Your task to perform on an android device: turn vacation reply on in the gmail app Image 0: 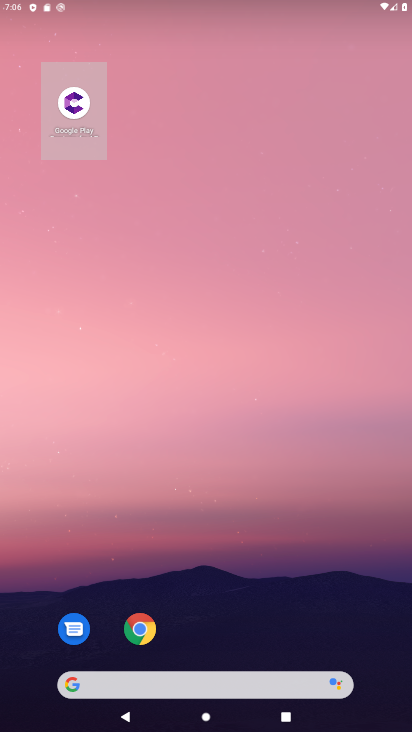
Step 0: drag from (284, 381) to (284, 249)
Your task to perform on an android device: turn vacation reply on in the gmail app Image 1: 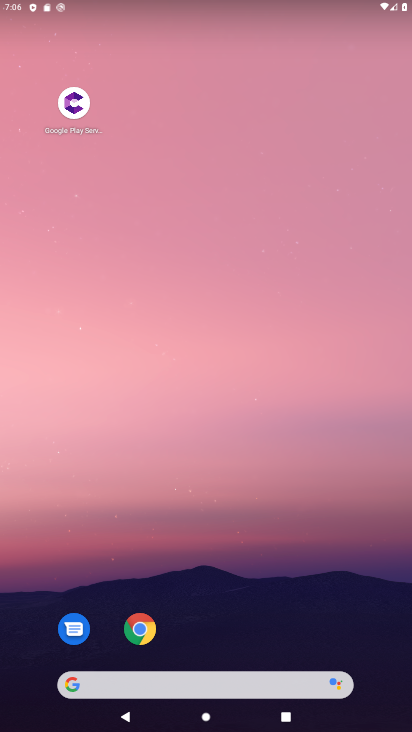
Step 1: drag from (212, 479) to (229, 239)
Your task to perform on an android device: turn vacation reply on in the gmail app Image 2: 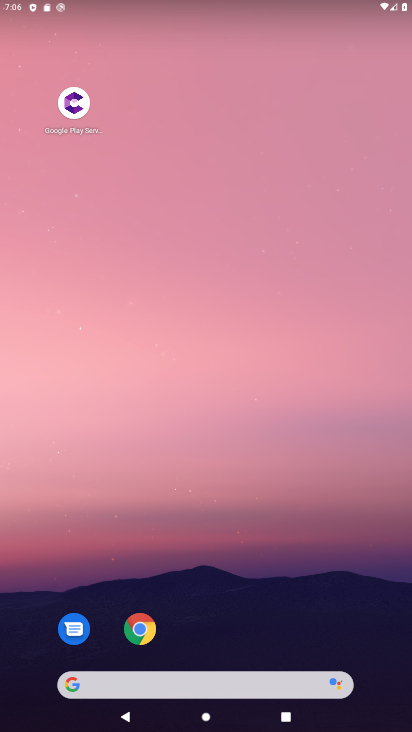
Step 2: drag from (255, 556) to (297, 270)
Your task to perform on an android device: turn vacation reply on in the gmail app Image 3: 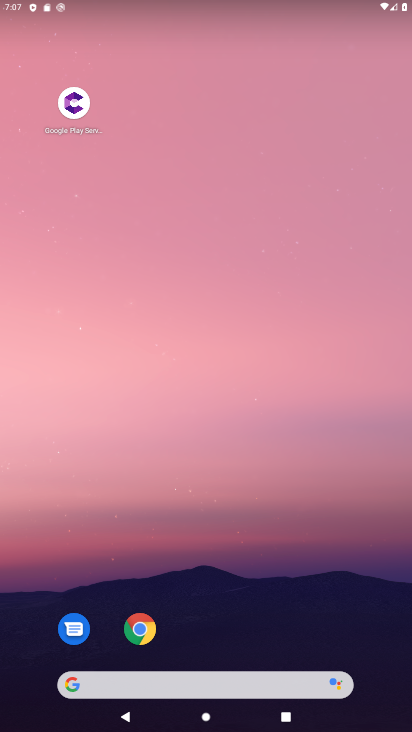
Step 3: drag from (254, 494) to (275, 246)
Your task to perform on an android device: turn vacation reply on in the gmail app Image 4: 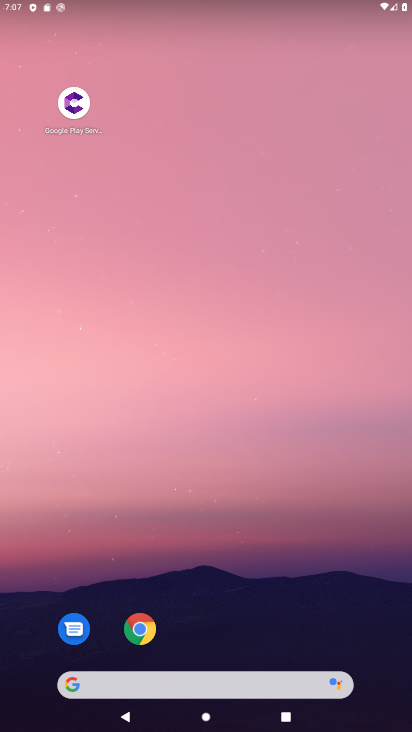
Step 4: drag from (270, 564) to (313, 200)
Your task to perform on an android device: turn vacation reply on in the gmail app Image 5: 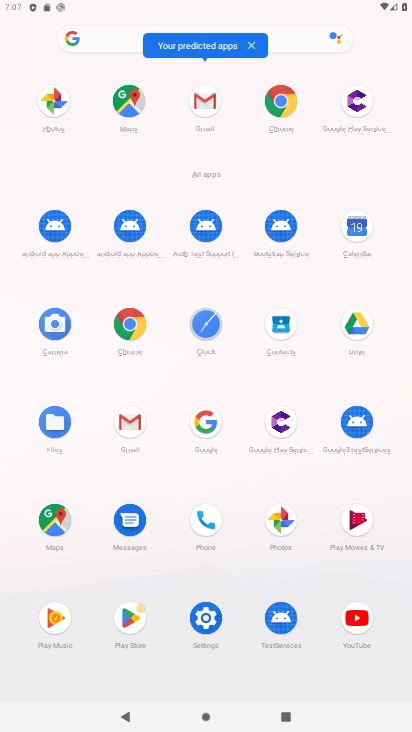
Step 5: click (127, 424)
Your task to perform on an android device: turn vacation reply on in the gmail app Image 6: 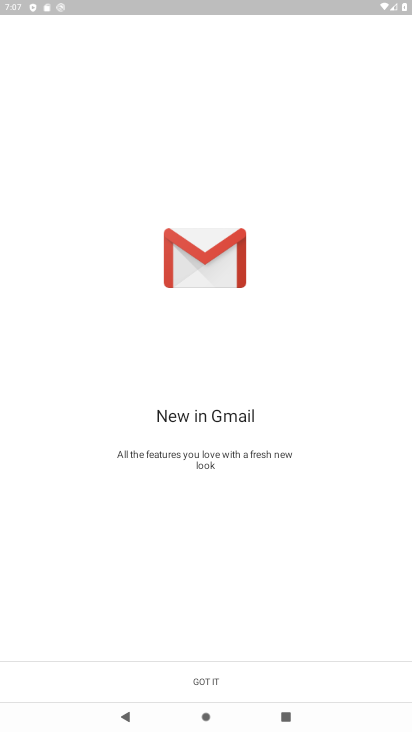
Step 6: click (217, 681)
Your task to perform on an android device: turn vacation reply on in the gmail app Image 7: 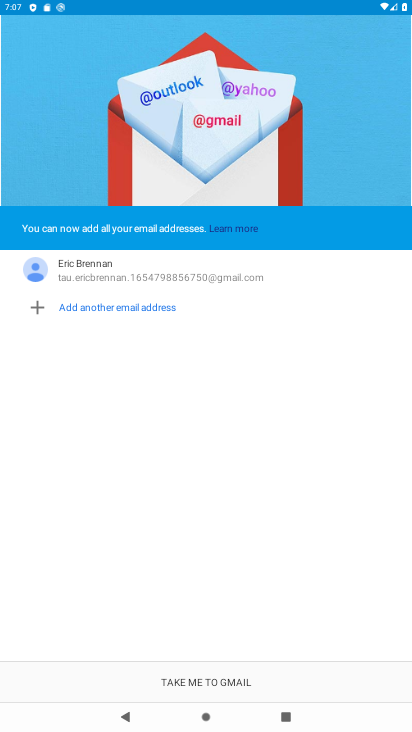
Step 7: click (215, 673)
Your task to perform on an android device: turn vacation reply on in the gmail app Image 8: 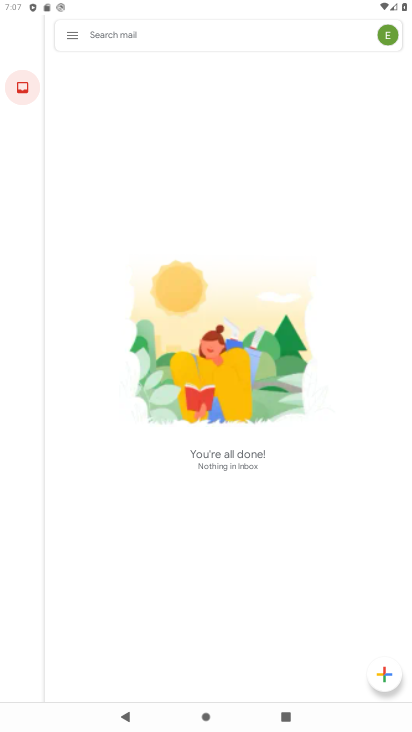
Step 8: task complete